Your task to perform on an android device: Open Chrome and go to settings Image 0: 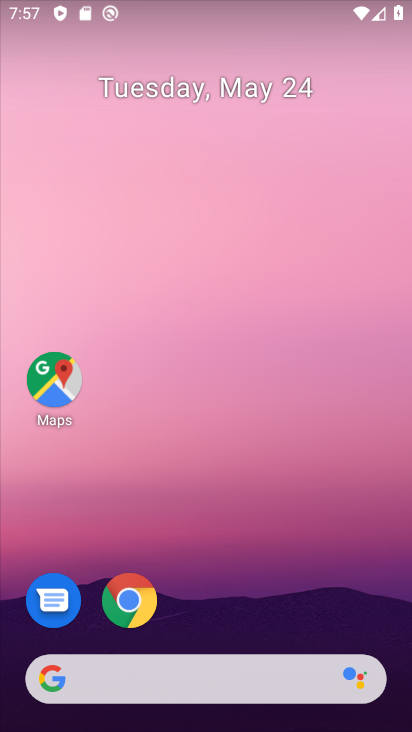
Step 0: click (131, 598)
Your task to perform on an android device: Open Chrome and go to settings Image 1: 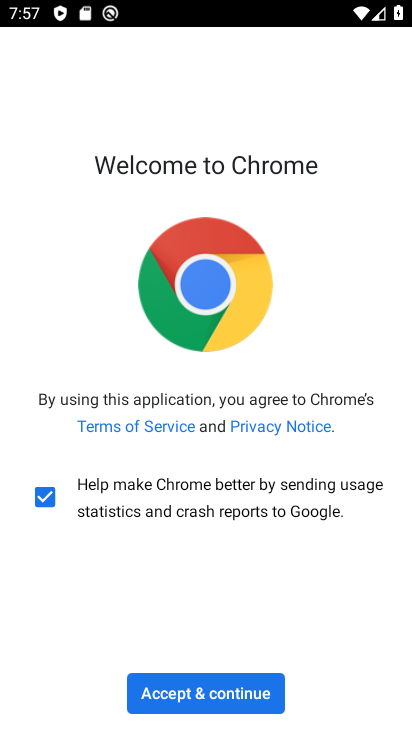
Step 1: click (183, 695)
Your task to perform on an android device: Open Chrome and go to settings Image 2: 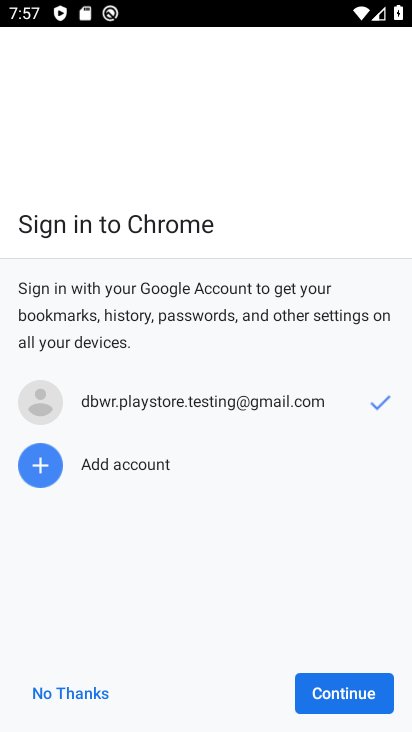
Step 2: click (331, 690)
Your task to perform on an android device: Open Chrome and go to settings Image 3: 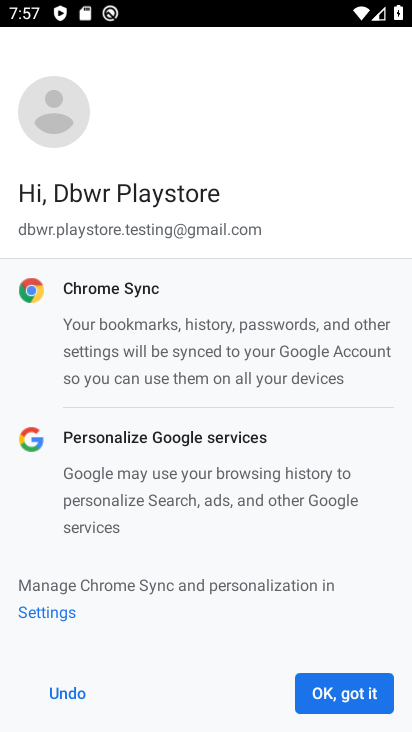
Step 3: click (331, 690)
Your task to perform on an android device: Open Chrome and go to settings Image 4: 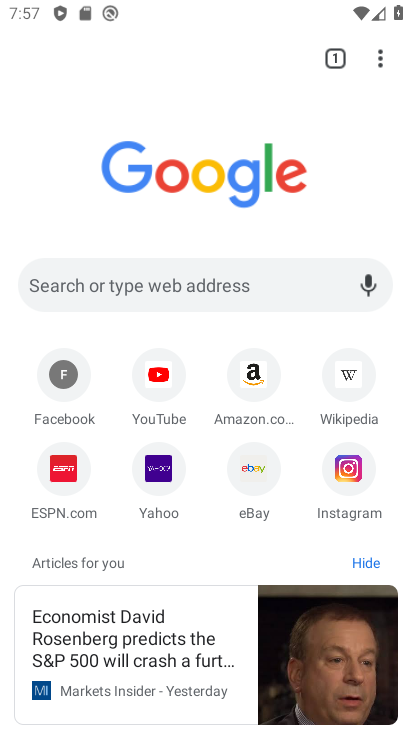
Step 4: click (382, 64)
Your task to perform on an android device: Open Chrome and go to settings Image 5: 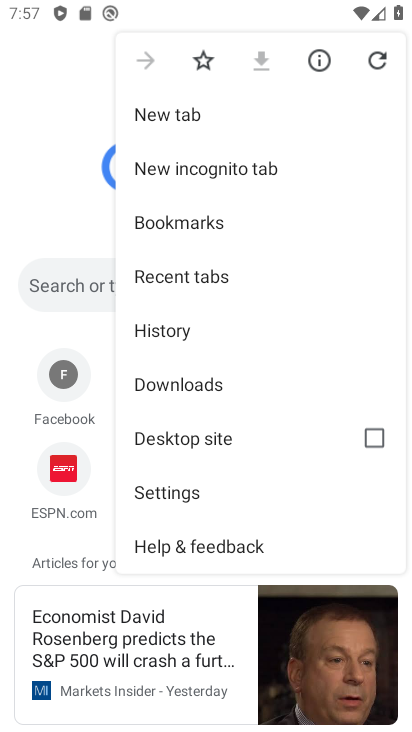
Step 5: click (181, 489)
Your task to perform on an android device: Open Chrome and go to settings Image 6: 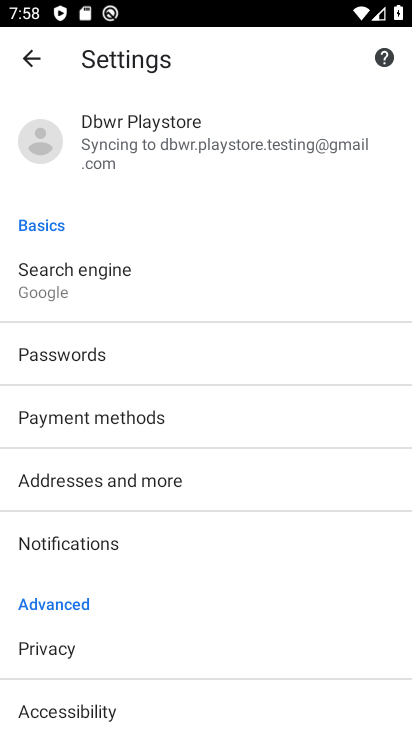
Step 6: task complete